Your task to perform on an android device: toggle translation in the chrome app Image 0: 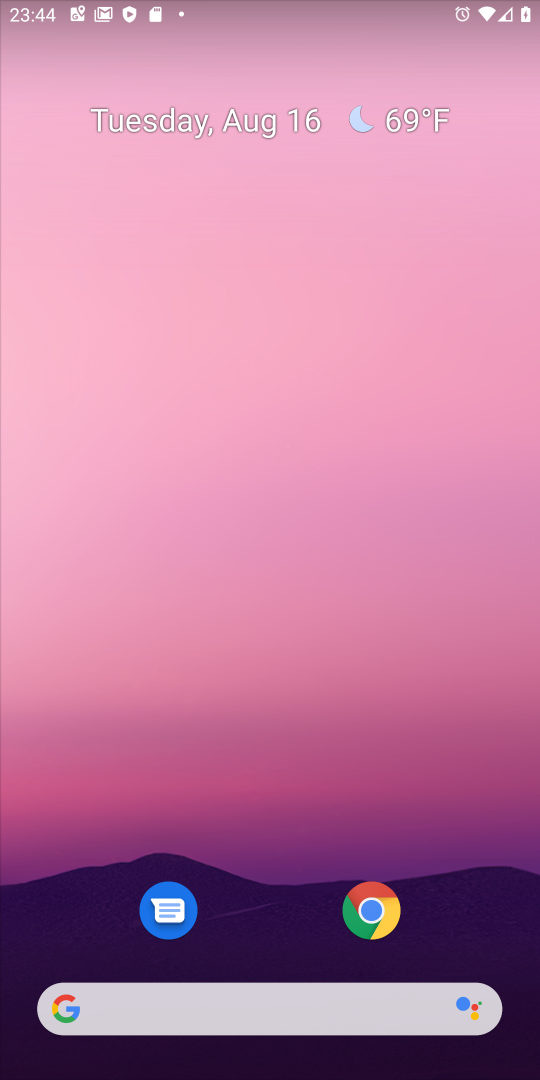
Step 0: drag from (266, 906) to (286, 19)
Your task to perform on an android device: toggle translation in the chrome app Image 1: 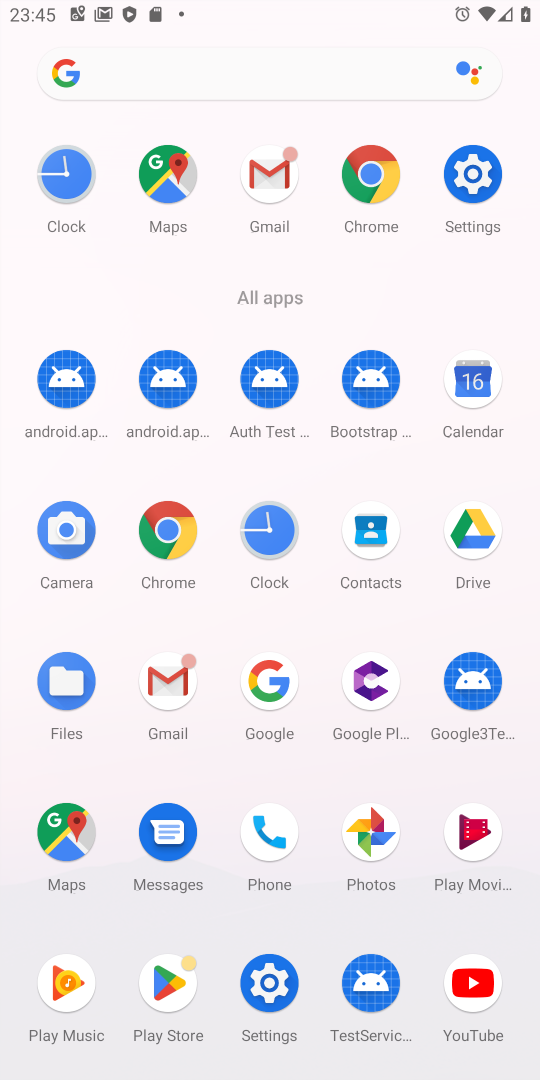
Step 1: click (165, 534)
Your task to perform on an android device: toggle translation in the chrome app Image 2: 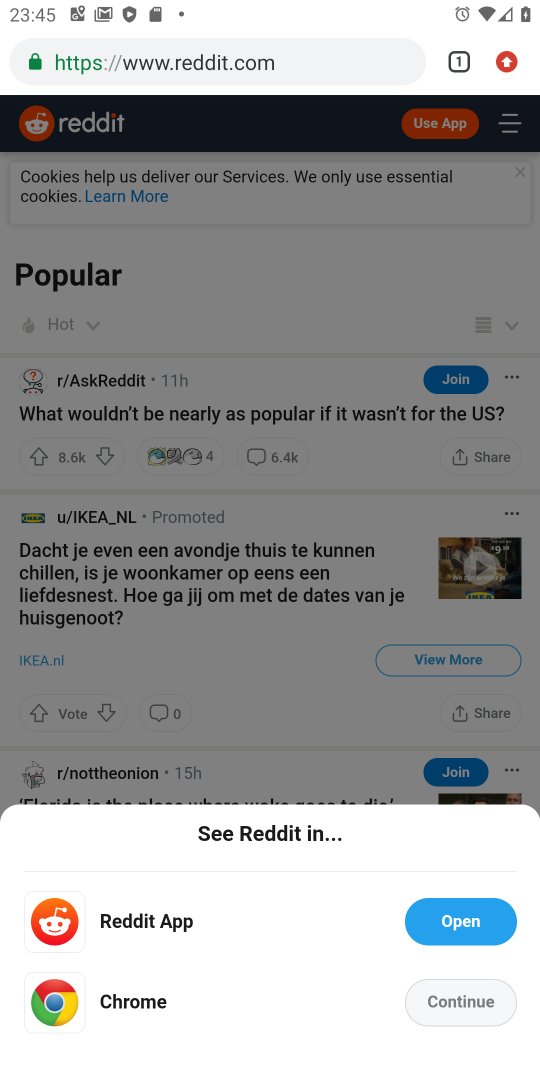
Step 2: drag from (528, 56) to (339, 812)
Your task to perform on an android device: toggle translation in the chrome app Image 3: 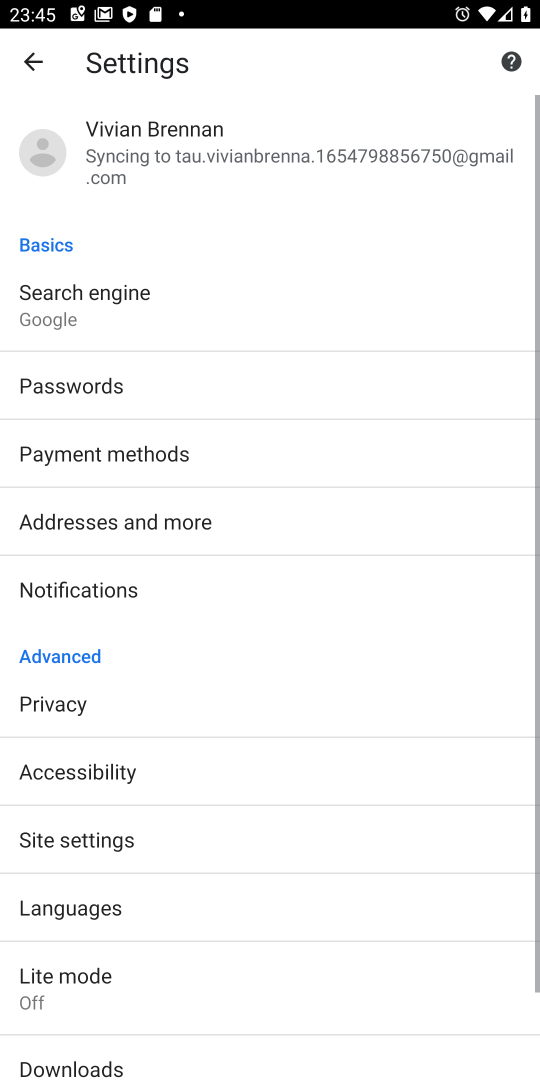
Step 3: drag from (254, 894) to (334, 228)
Your task to perform on an android device: toggle translation in the chrome app Image 4: 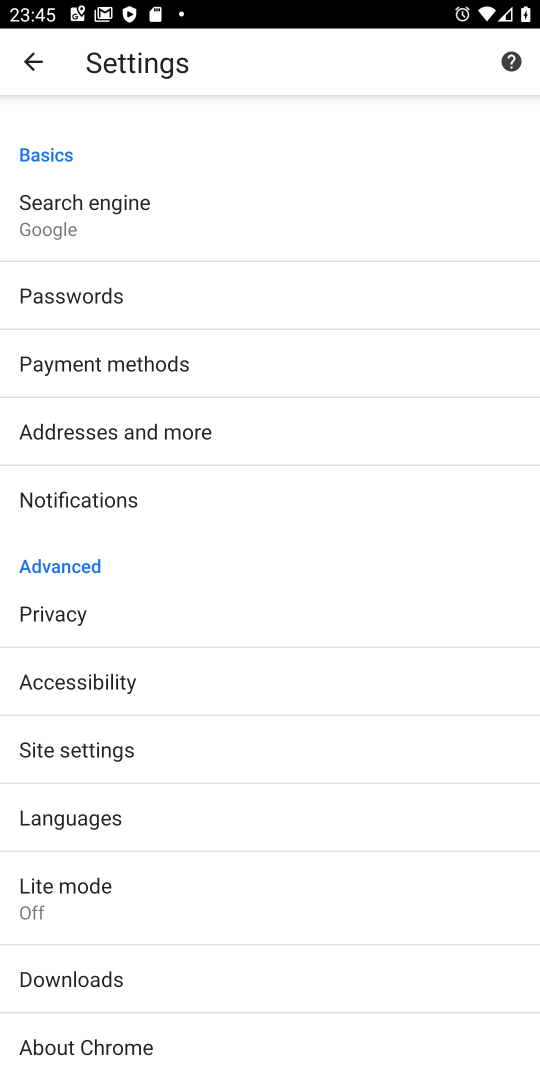
Step 4: click (139, 809)
Your task to perform on an android device: toggle translation in the chrome app Image 5: 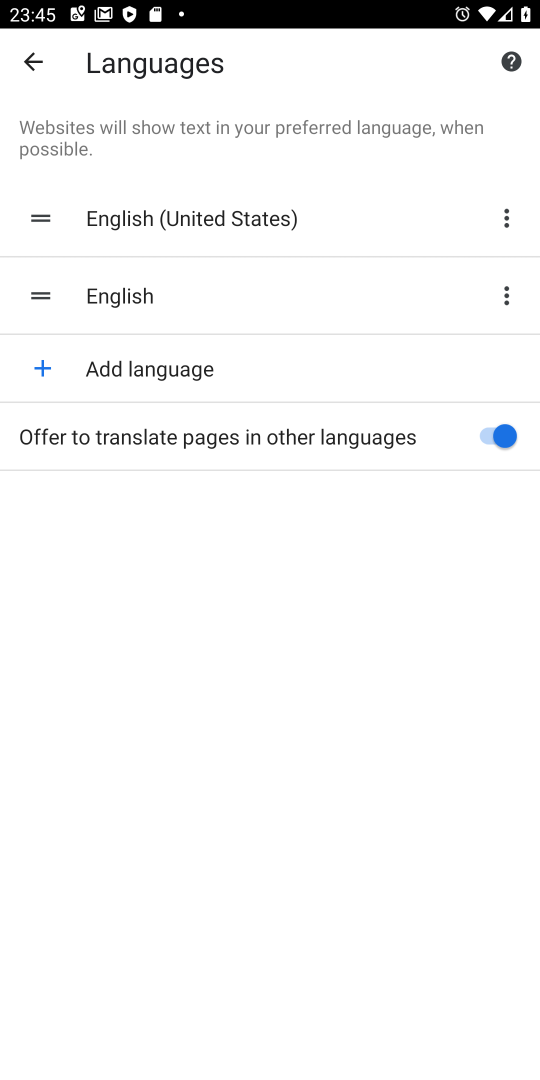
Step 5: click (464, 440)
Your task to perform on an android device: toggle translation in the chrome app Image 6: 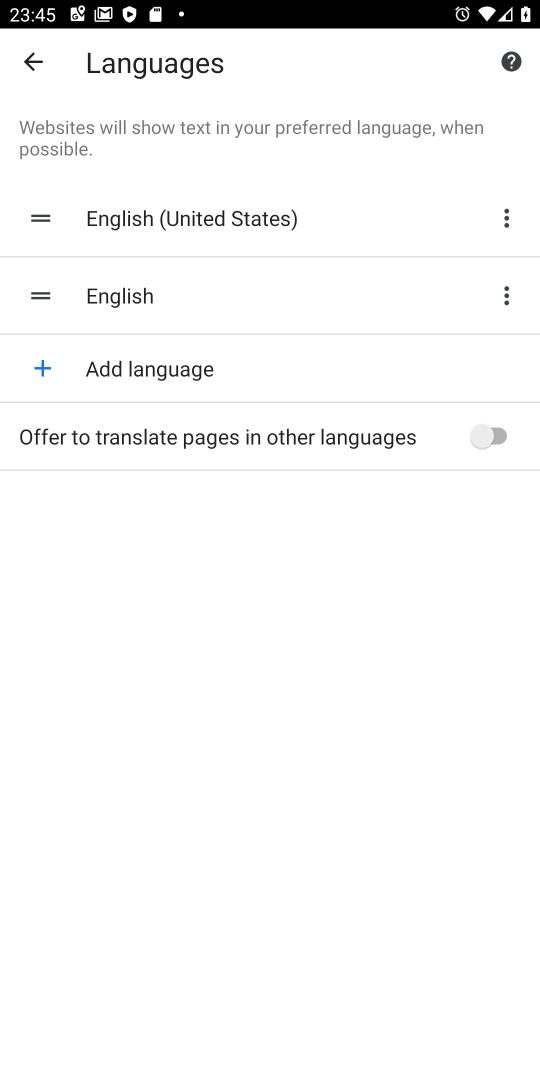
Step 6: task complete